Your task to perform on an android device: check out phone information Image 0: 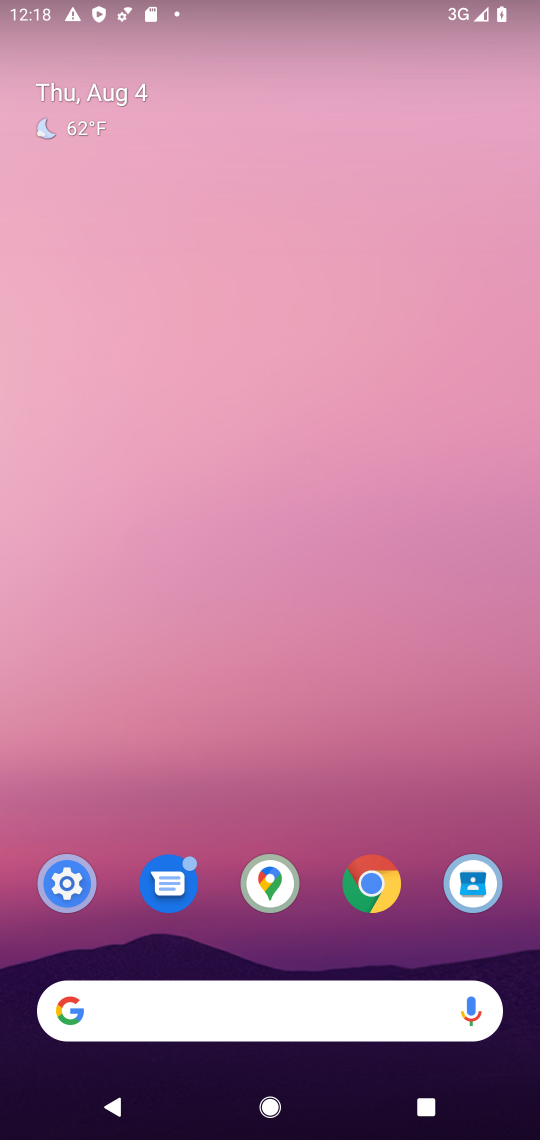
Step 0: click (522, 983)
Your task to perform on an android device: check out phone information Image 1: 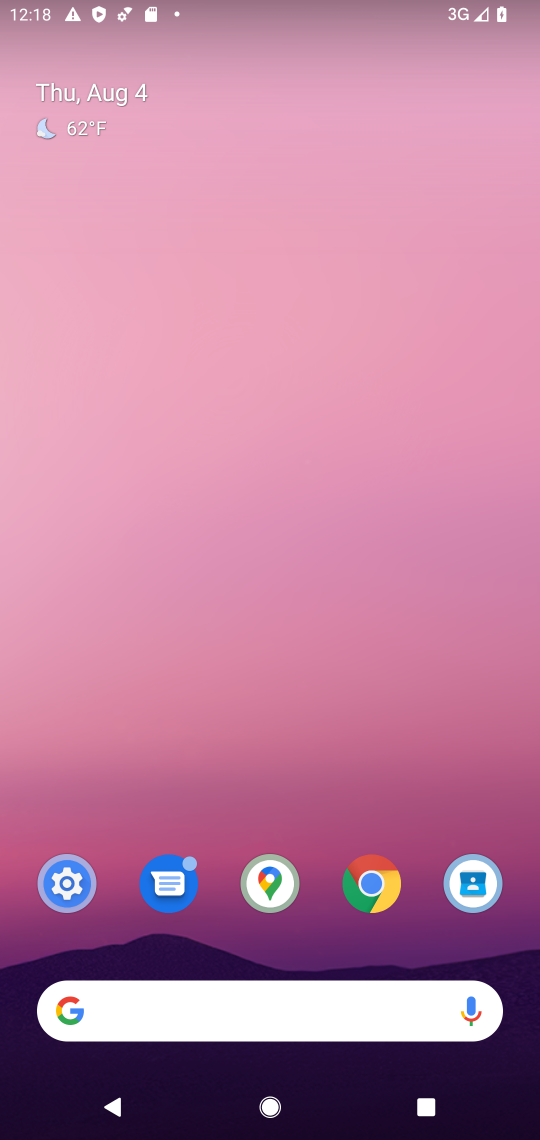
Step 1: drag from (290, 968) to (382, 440)
Your task to perform on an android device: check out phone information Image 2: 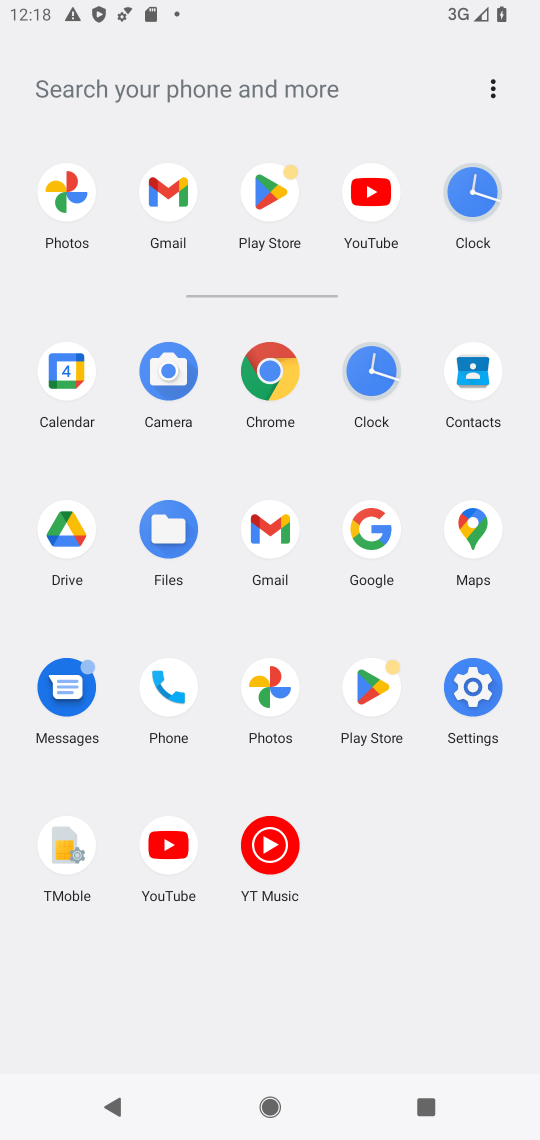
Step 2: click (492, 677)
Your task to perform on an android device: check out phone information Image 3: 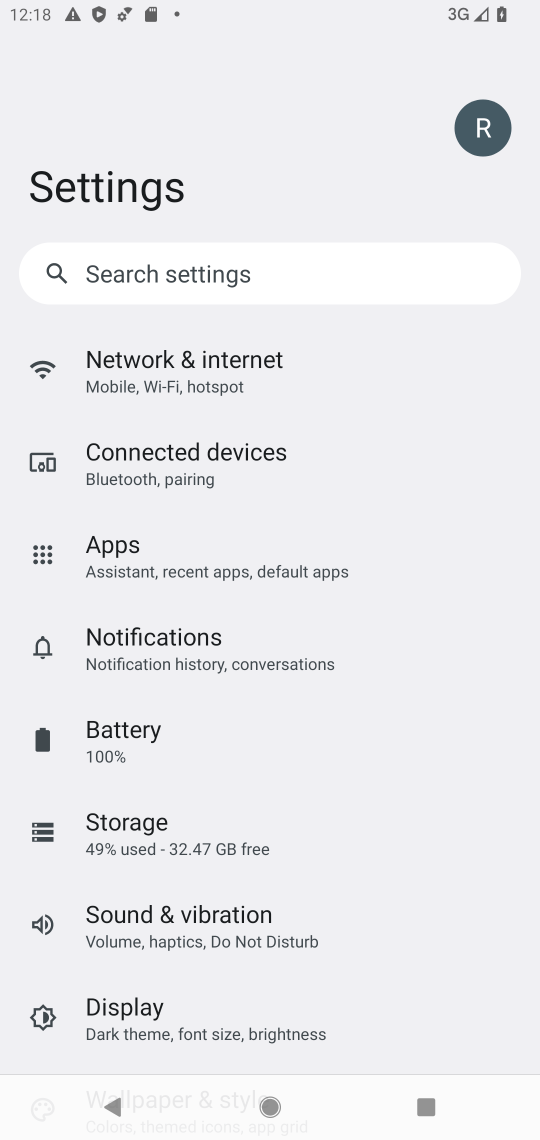
Step 3: drag from (260, 1014) to (335, 56)
Your task to perform on an android device: check out phone information Image 4: 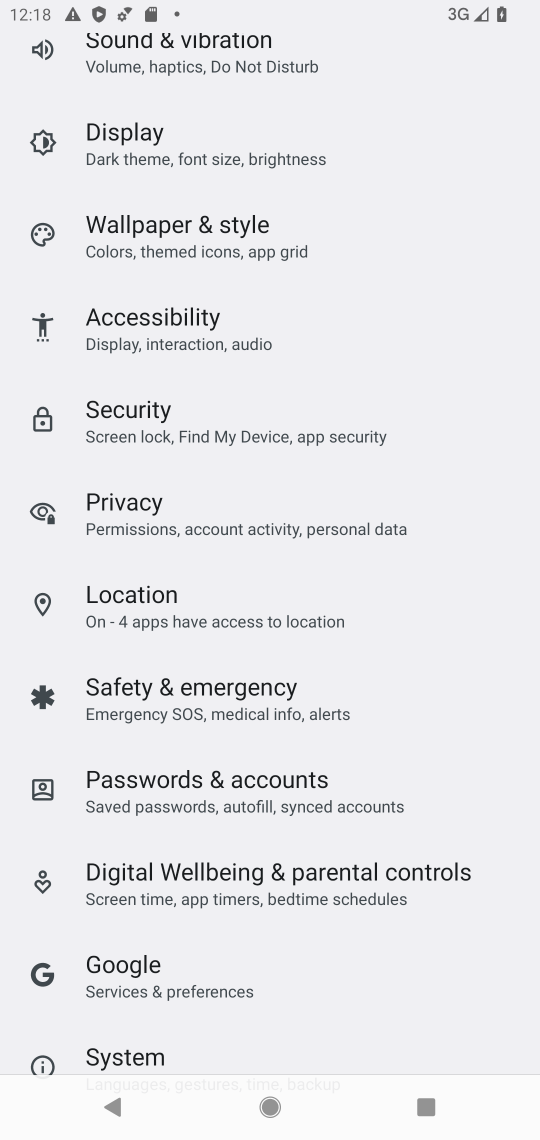
Step 4: drag from (237, 874) to (291, 304)
Your task to perform on an android device: check out phone information Image 5: 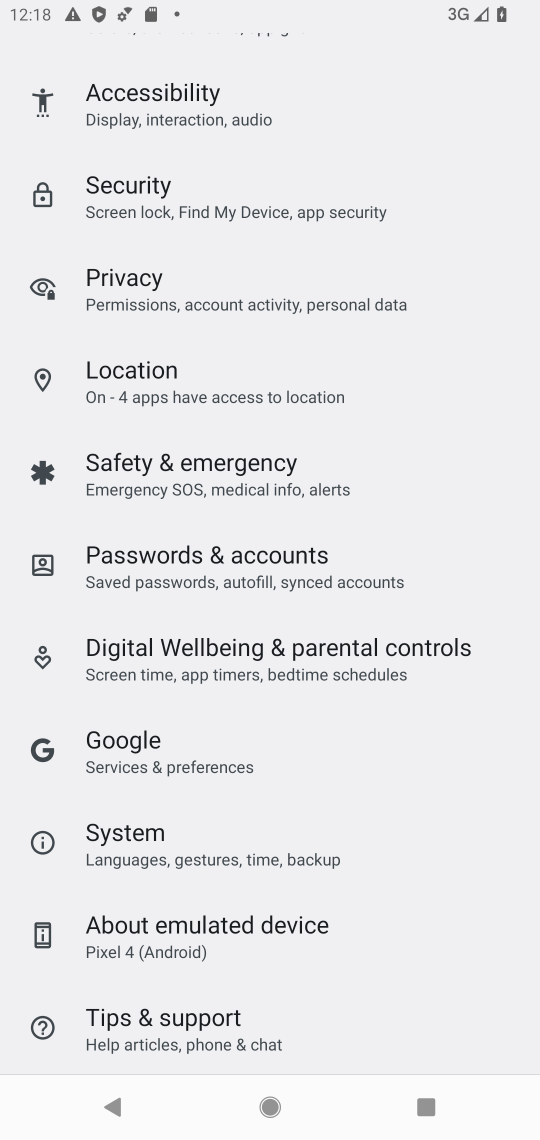
Step 5: drag from (277, 786) to (303, 142)
Your task to perform on an android device: check out phone information Image 6: 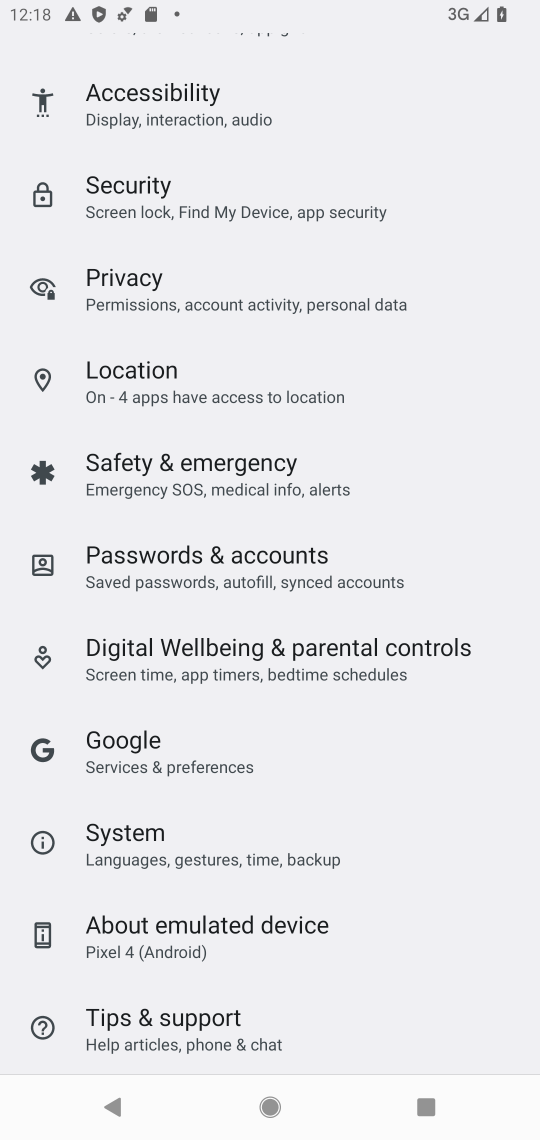
Step 6: click (153, 942)
Your task to perform on an android device: check out phone information Image 7: 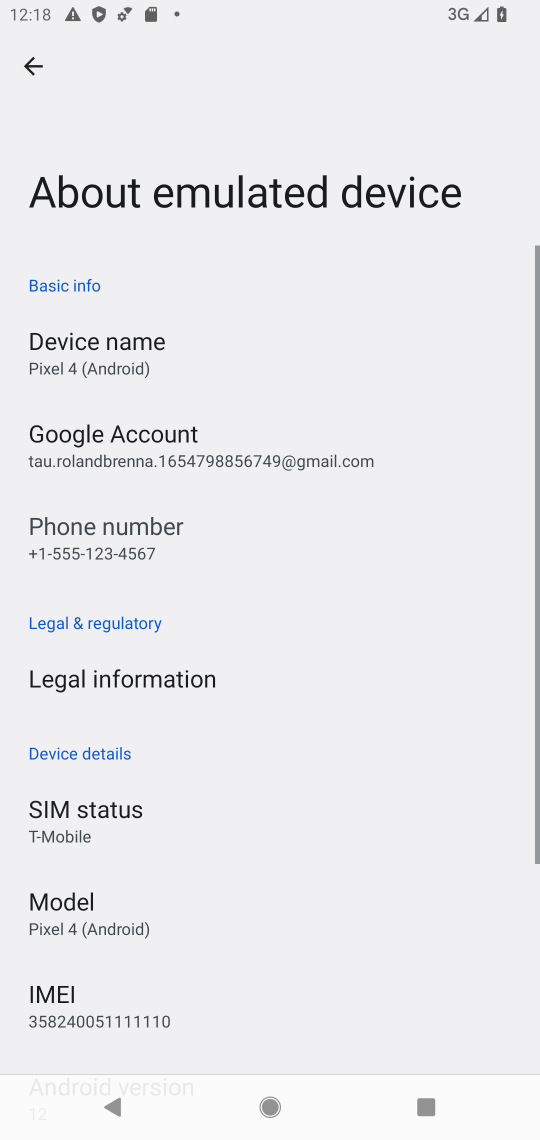
Step 7: task complete